Your task to perform on an android device: Open sound settings Image 0: 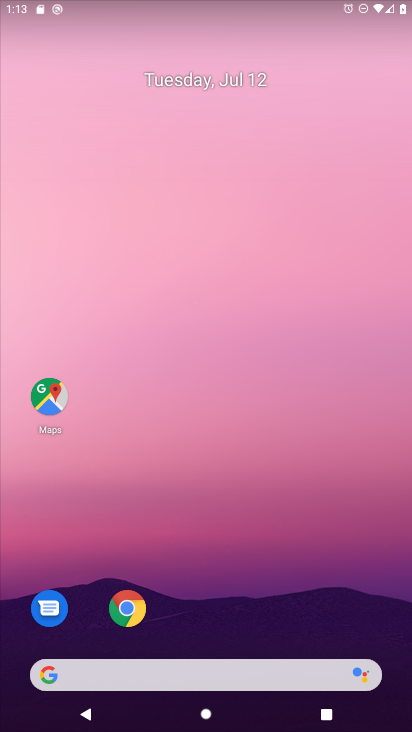
Step 0: drag from (225, 663) to (225, 182)
Your task to perform on an android device: Open sound settings Image 1: 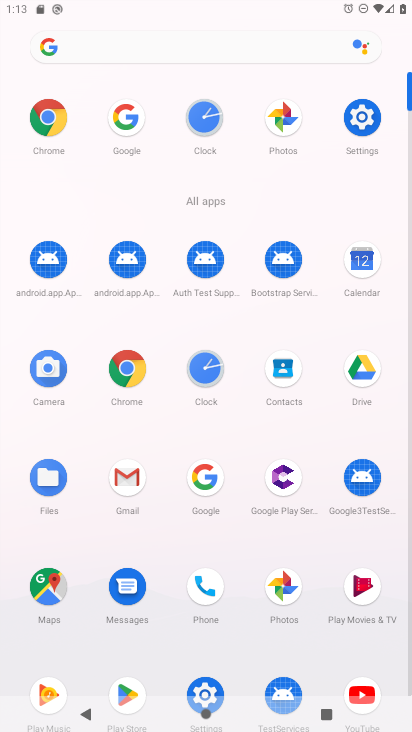
Step 1: click (367, 119)
Your task to perform on an android device: Open sound settings Image 2: 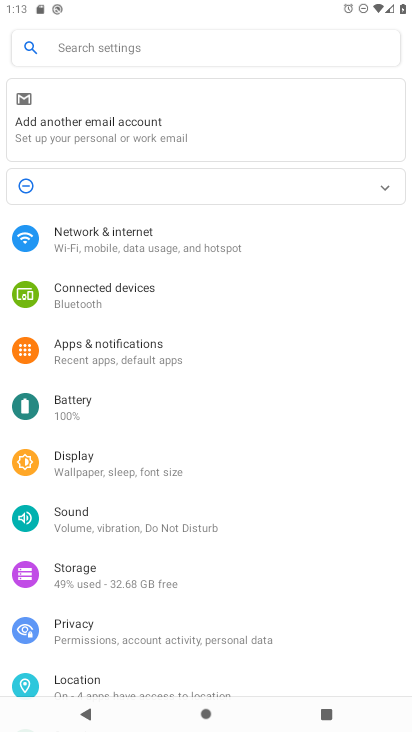
Step 2: click (101, 518)
Your task to perform on an android device: Open sound settings Image 3: 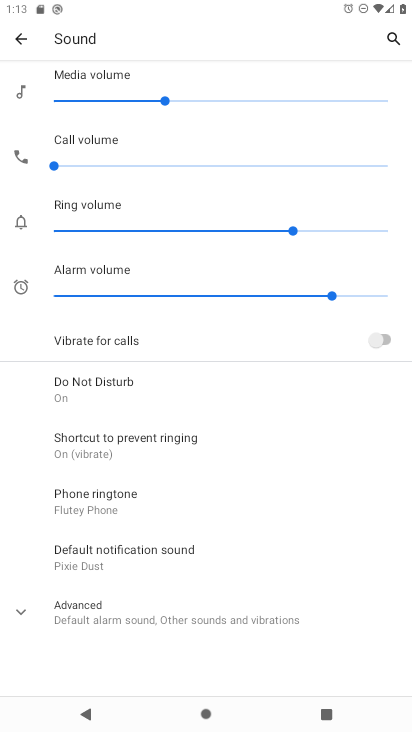
Step 3: click (164, 607)
Your task to perform on an android device: Open sound settings Image 4: 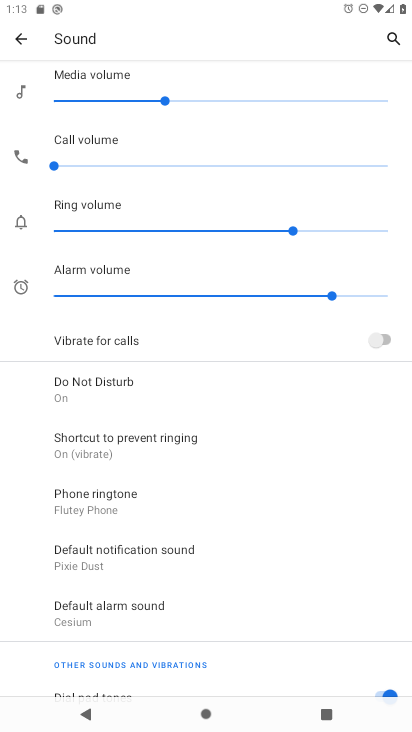
Step 4: task complete